Your task to perform on an android device: toggle data saver in the chrome app Image 0: 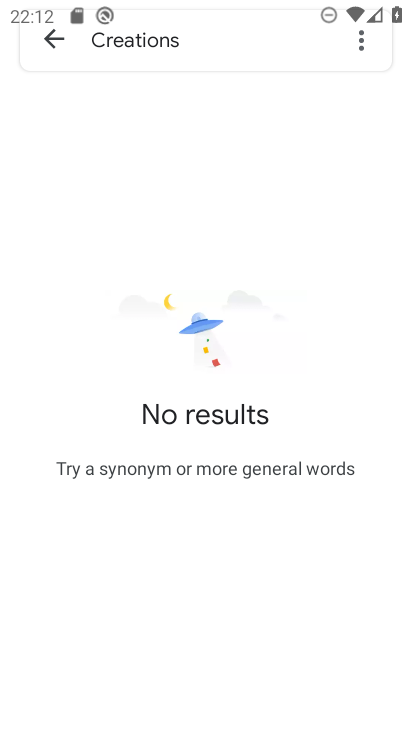
Step 0: press home button
Your task to perform on an android device: toggle data saver in the chrome app Image 1: 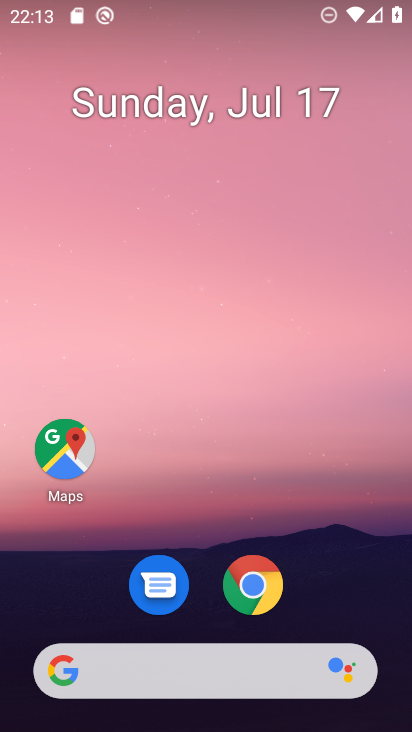
Step 1: click (259, 584)
Your task to perform on an android device: toggle data saver in the chrome app Image 2: 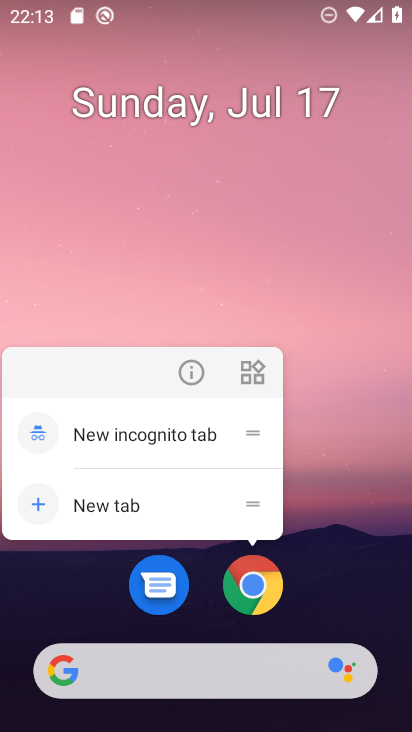
Step 2: click (249, 593)
Your task to perform on an android device: toggle data saver in the chrome app Image 3: 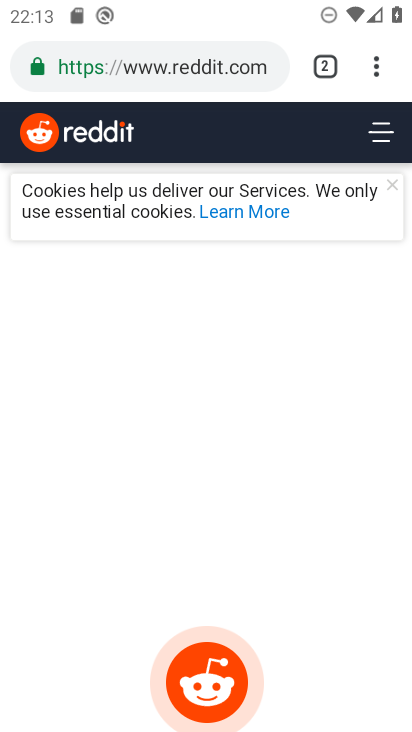
Step 3: drag from (372, 73) to (200, 581)
Your task to perform on an android device: toggle data saver in the chrome app Image 4: 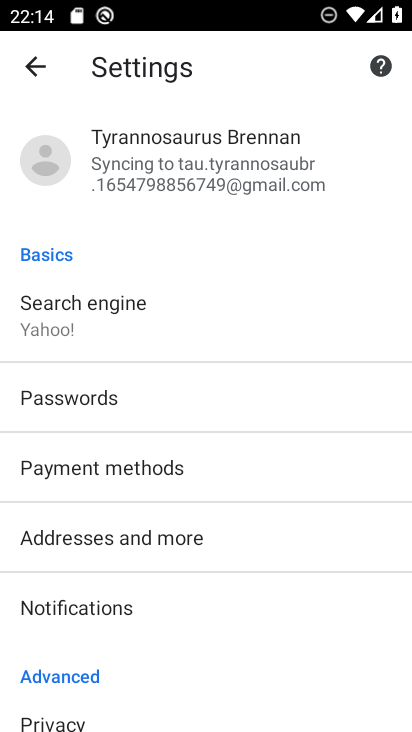
Step 4: drag from (137, 632) to (250, 188)
Your task to perform on an android device: toggle data saver in the chrome app Image 5: 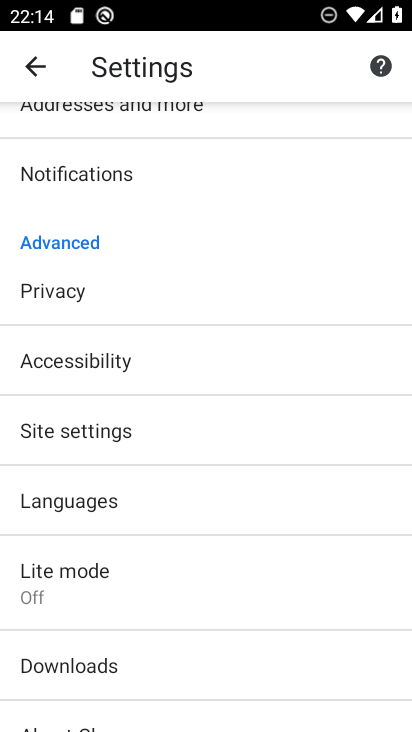
Step 5: click (87, 581)
Your task to perform on an android device: toggle data saver in the chrome app Image 6: 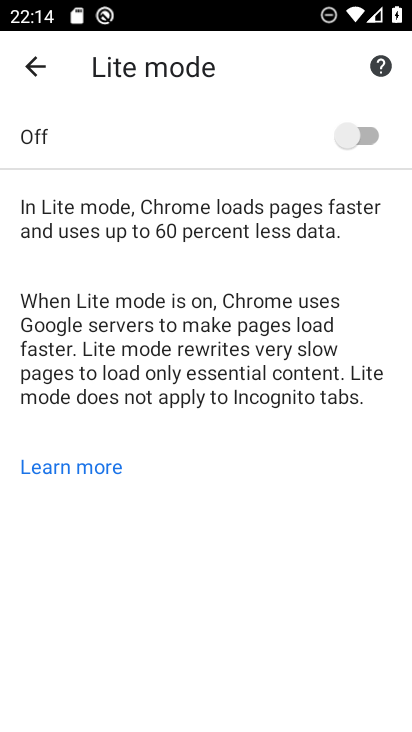
Step 6: click (366, 136)
Your task to perform on an android device: toggle data saver in the chrome app Image 7: 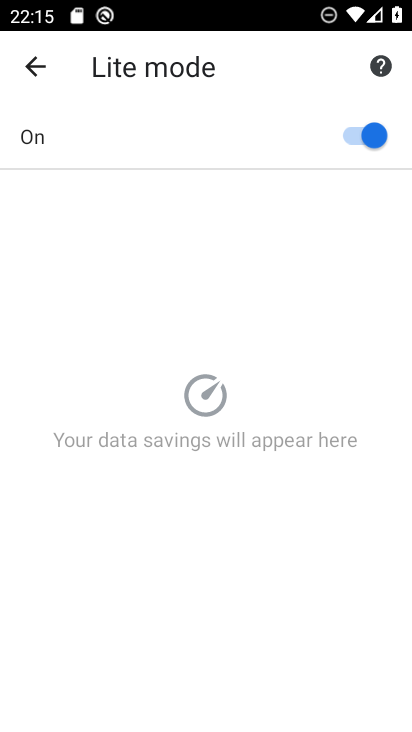
Step 7: task complete